Your task to perform on an android device: Open Chrome and go to settings Image 0: 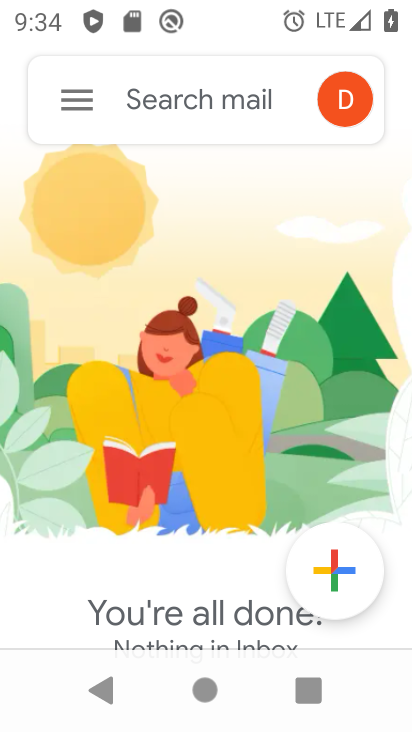
Step 0: drag from (134, 587) to (200, 321)
Your task to perform on an android device: Open Chrome and go to settings Image 1: 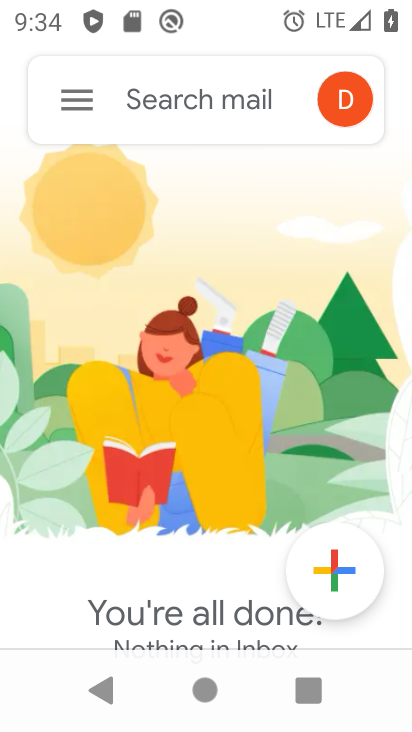
Step 1: press home button
Your task to perform on an android device: Open Chrome and go to settings Image 2: 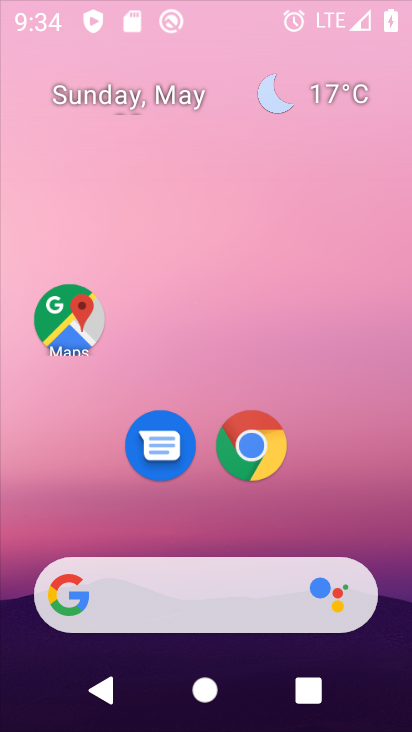
Step 2: drag from (308, 449) to (398, 24)
Your task to perform on an android device: Open Chrome and go to settings Image 3: 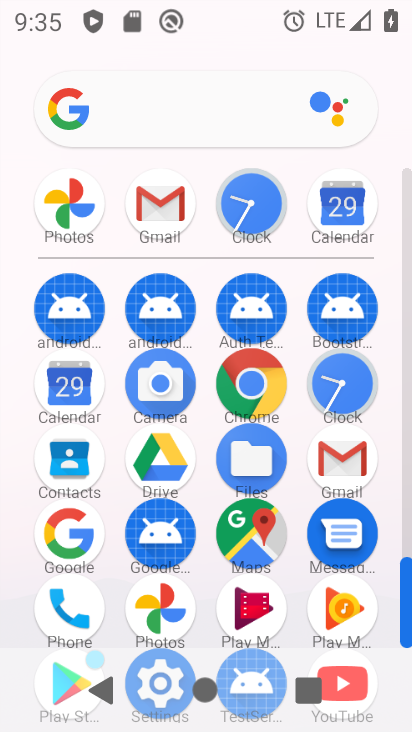
Step 3: click (247, 384)
Your task to perform on an android device: Open Chrome and go to settings Image 4: 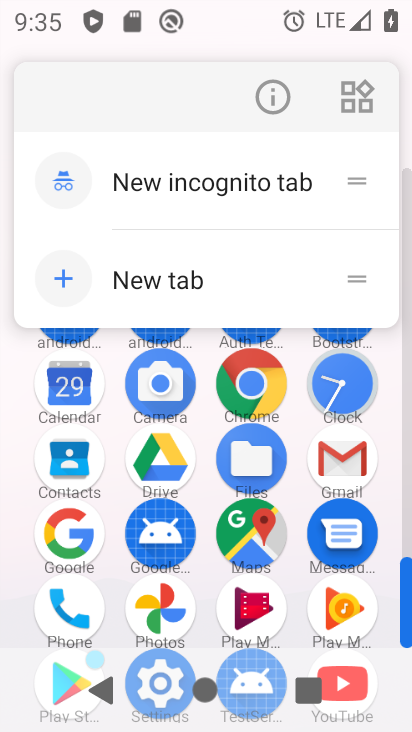
Step 4: click (268, 96)
Your task to perform on an android device: Open Chrome and go to settings Image 5: 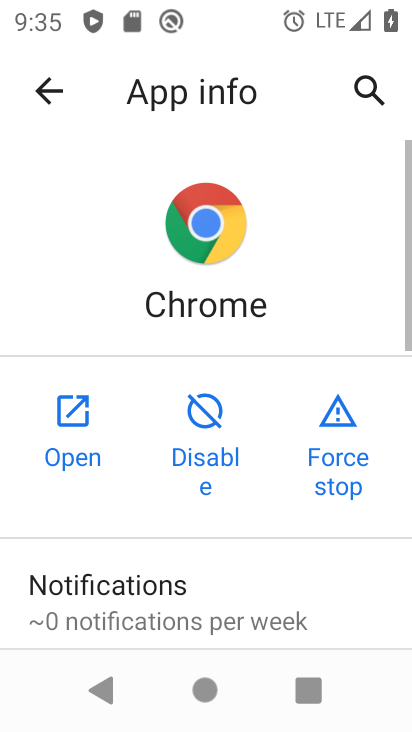
Step 5: click (72, 415)
Your task to perform on an android device: Open Chrome and go to settings Image 6: 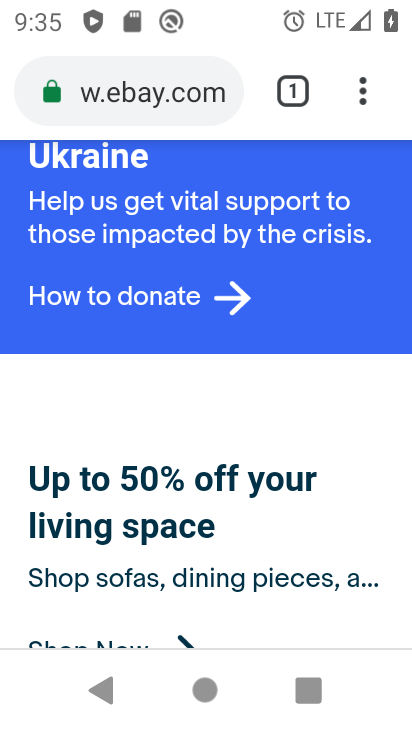
Step 6: click (369, 95)
Your task to perform on an android device: Open Chrome and go to settings Image 7: 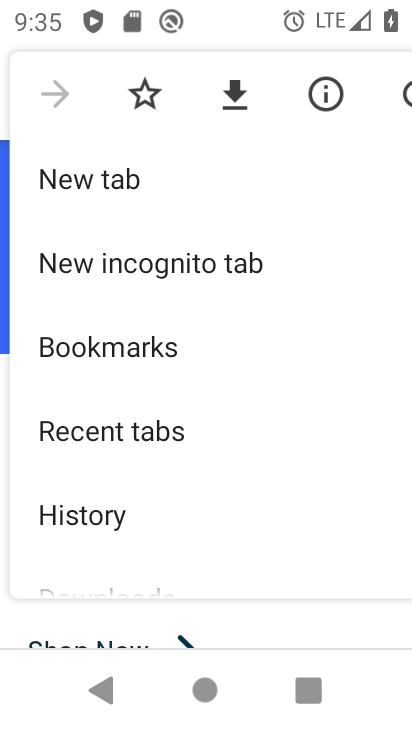
Step 7: drag from (144, 490) to (213, 160)
Your task to perform on an android device: Open Chrome and go to settings Image 8: 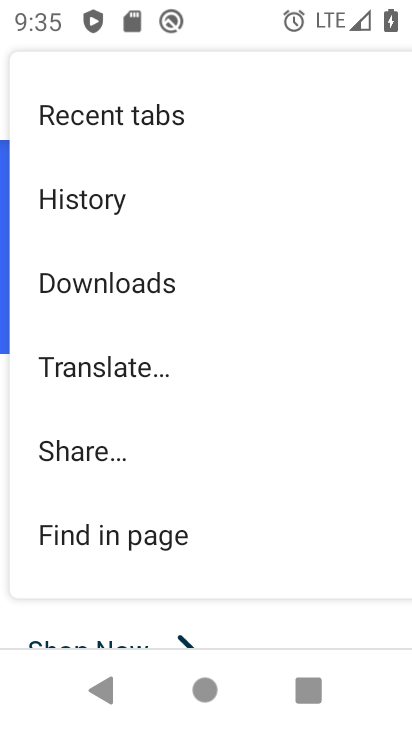
Step 8: drag from (161, 430) to (290, 118)
Your task to perform on an android device: Open Chrome and go to settings Image 9: 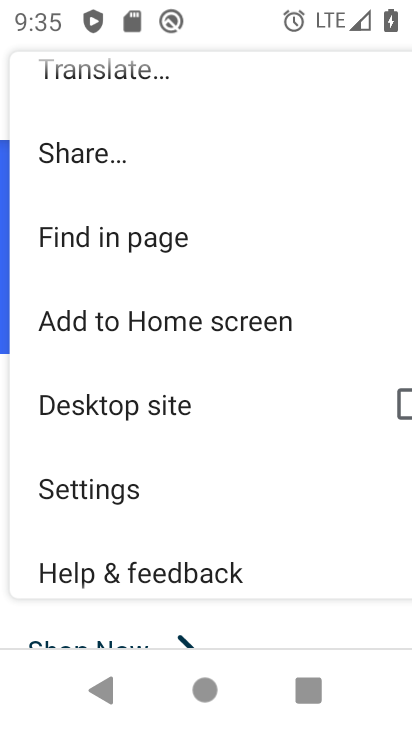
Step 9: click (129, 487)
Your task to perform on an android device: Open Chrome and go to settings Image 10: 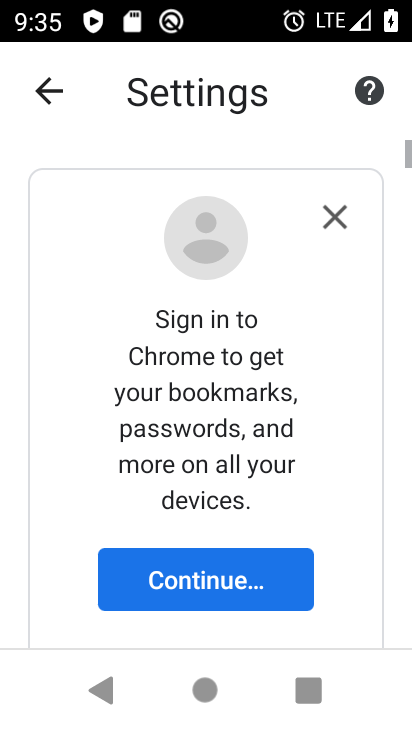
Step 10: task complete